Your task to perform on an android device: What is the recent news? Image 0: 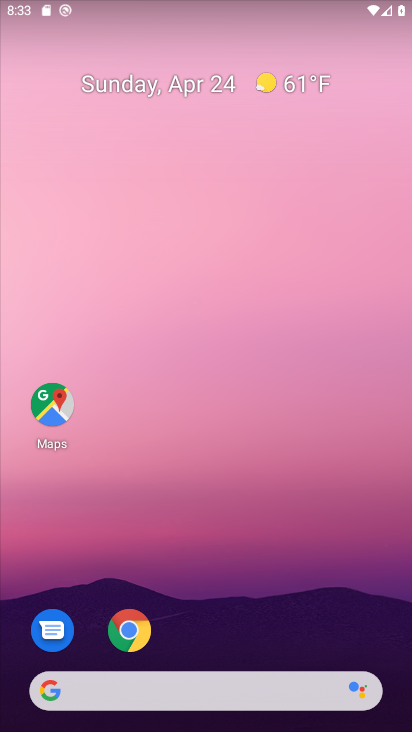
Step 0: drag from (2, 254) to (410, 553)
Your task to perform on an android device: What is the recent news? Image 1: 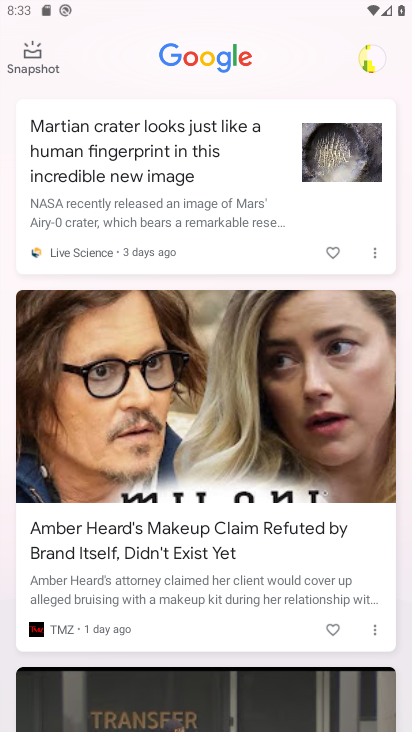
Step 1: task complete